Your task to perform on an android device: Go to Android settings Image 0: 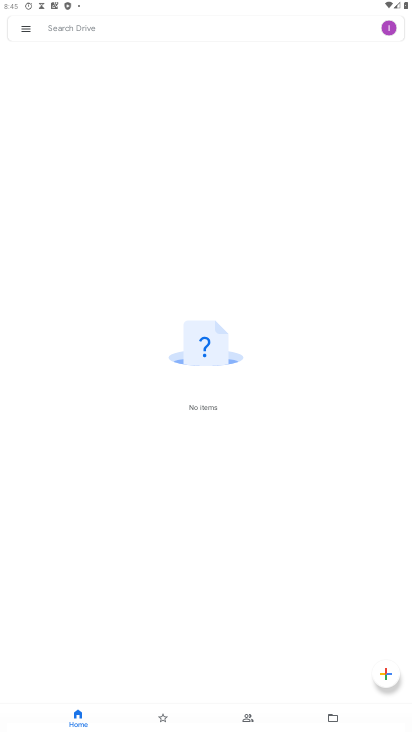
Step 0: press home button
Your task to perform on an android device: Go to Android settings Image 1: 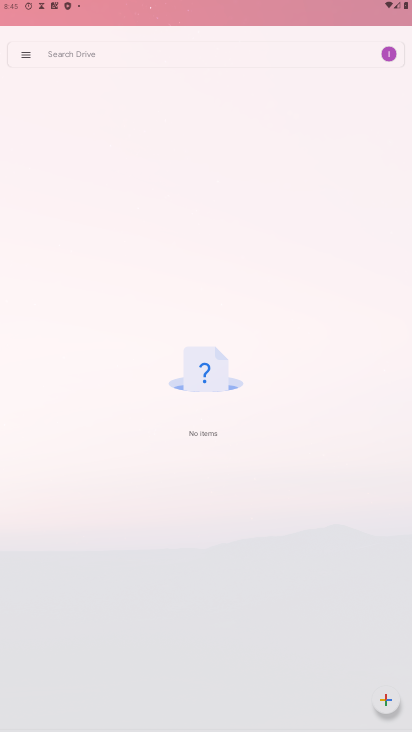
Step 1: drag from (184, 581) to (264, 240)
Your task to perform on an android device: Go to Android settings Image 2: 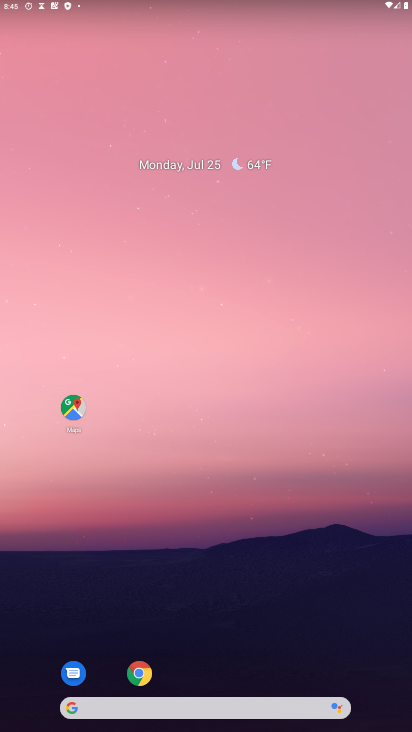
Step 2: drag from (173, 662) to (272, 109)
Your task to perform on an android device: Go to Android settings Image 3: 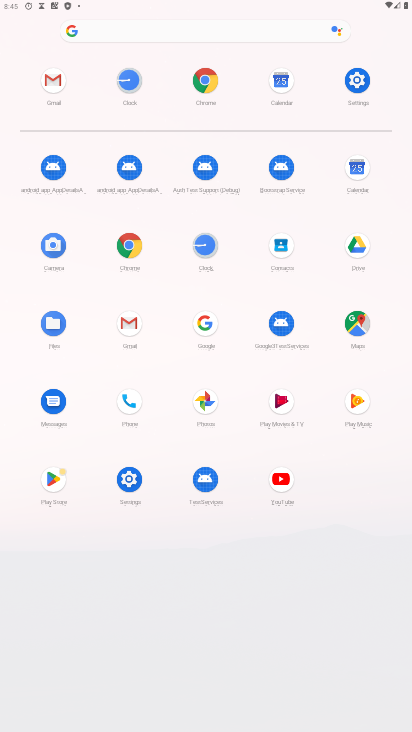
Step 3: click (356, 87)
Your task to perform on an android device: Go to Android settings Image 4: 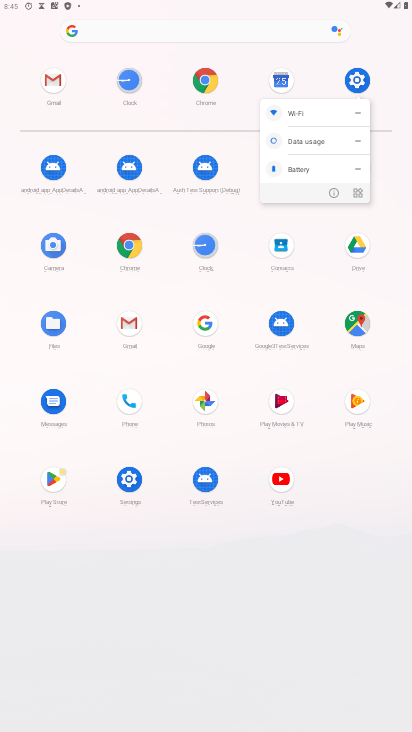
Step 4: click (333, 193)
Your task to perform on an android device: Go to Android settings Image 5: 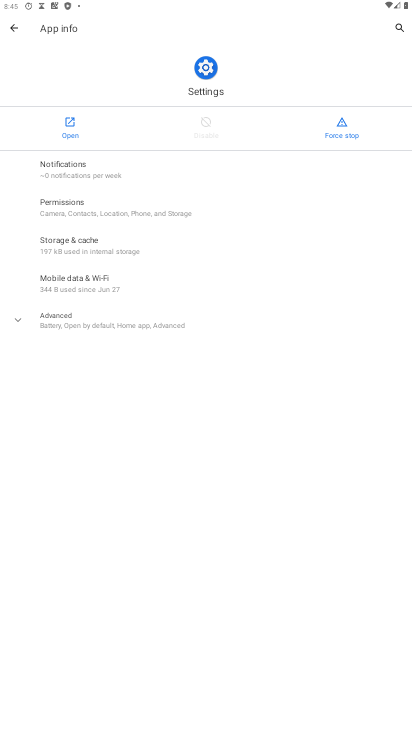
Step 5: click (66, 118)
Your task to perform on an android device: Go to Android settings Image 6: 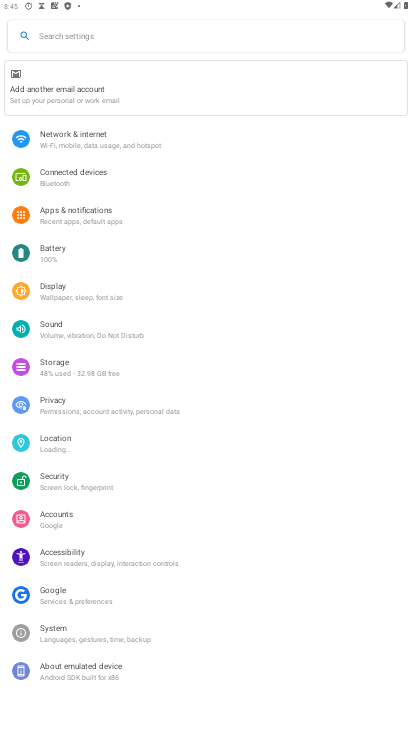
Step 6: click (63, 672)
Your task to perform on an android device: Go to Android settings Image 7: 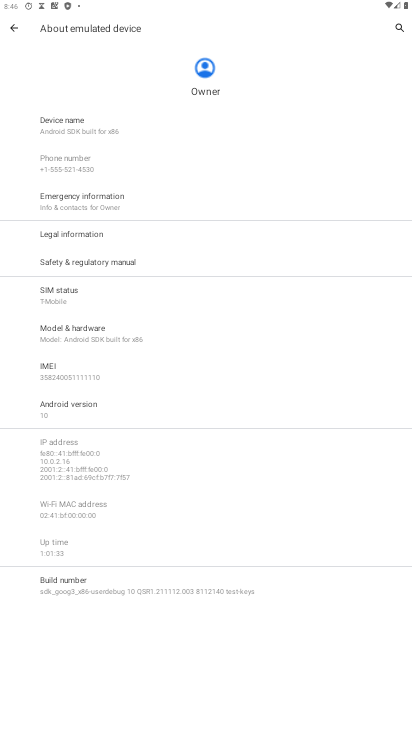
Step 7: click (114, 399)
Your task to perform on an android device: Go to Android settings Image 8: 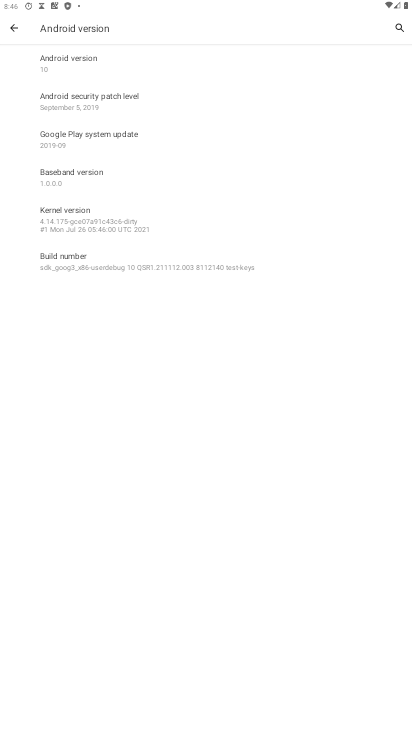
Step 8: drag from (228, 636) to (216, 293)
Your task to perform on an android device: Go to Android settings Image 9: 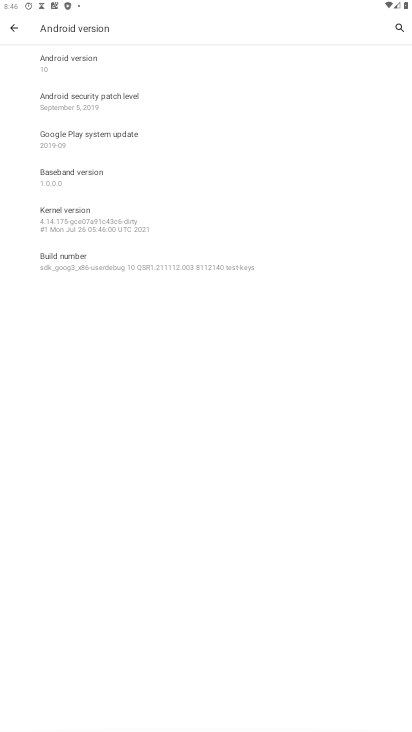
Step 9: click (68, 52)
Your task to perform on an android device: Go to Android settings Image 10: 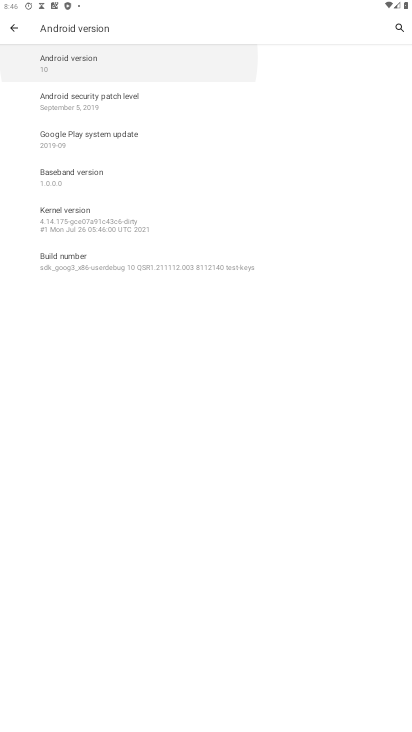
Step 10: click (77, 53)
Your task to perform on an android device: Go to Android settings Image 11: 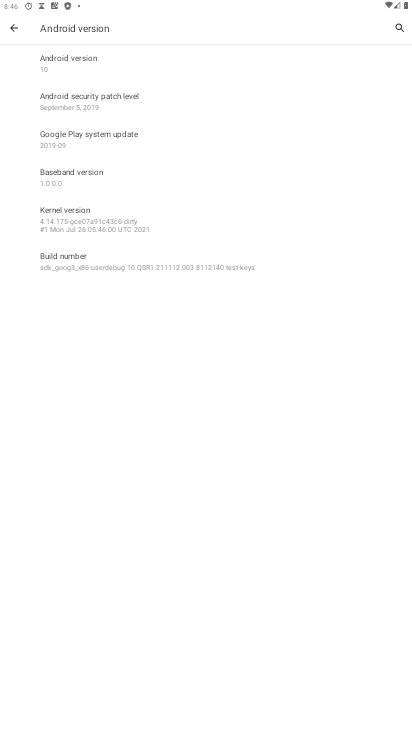
Step 11: task complete